Your task to perform on an android device: turn smart compose on in the gmail app Image 0: 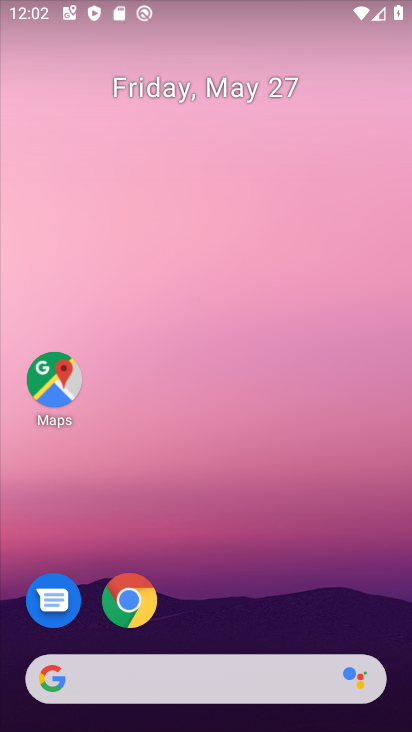
Step 0: drag from (241, 508) to (204, 3)
Your task to perform on an android device: turn smart compose on in the gmail app Image 1: 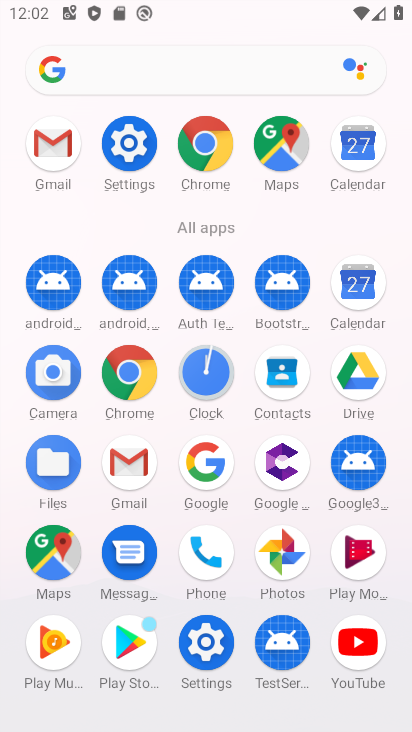
Step 1: drag from (11, 579) to (22, 235)
Your task to perform on an android device: turn smart compose on in the gmail app Image 2: 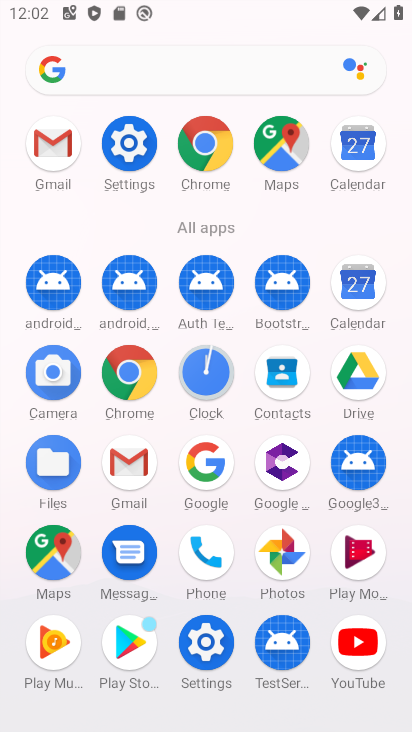
Step 2: click (121, 455)
Your task to perform on an android device: turn smart compose on in the gmail app Image 3: 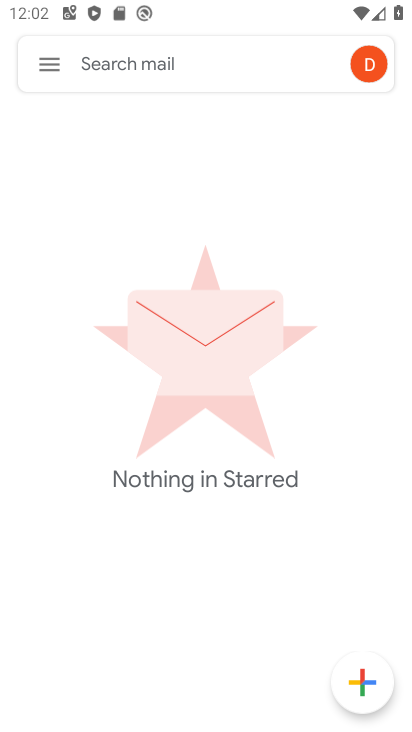
Step 3: click (49, 63)
Your task to perform on an android device: turn smart compose on in the gmail app Image 4: 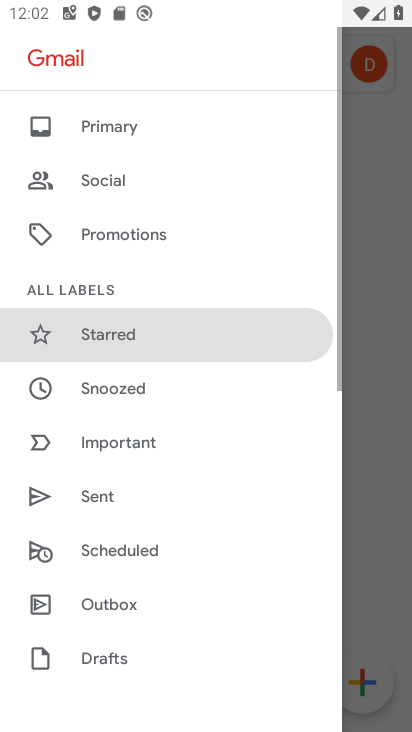
Step 4: drag from (197, 594) to (209, 109)
Your task to perform on an android device: turn smart compose on in the gmail app Image 5: 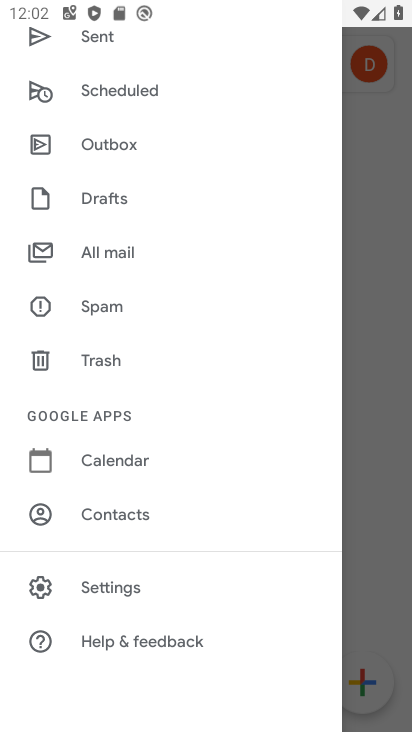
Step 5: click (138, 588)
Your task to perform on an android device: turn smart compose on in the gmail app Image 6: 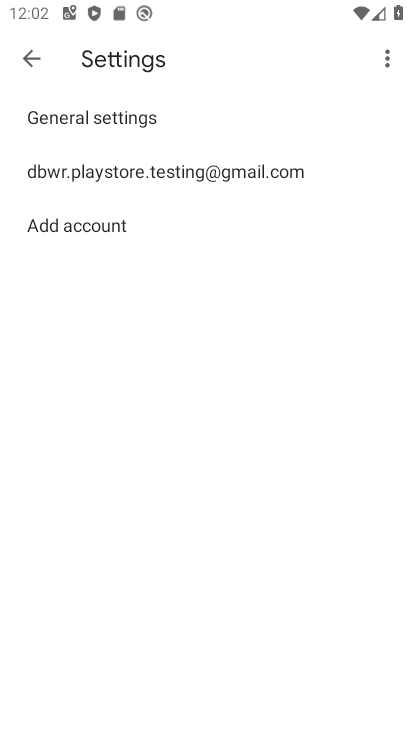
Step 6: click (180, 169)
Your task to perform on an android device: turn smart compose on in the gmail app Image 7: 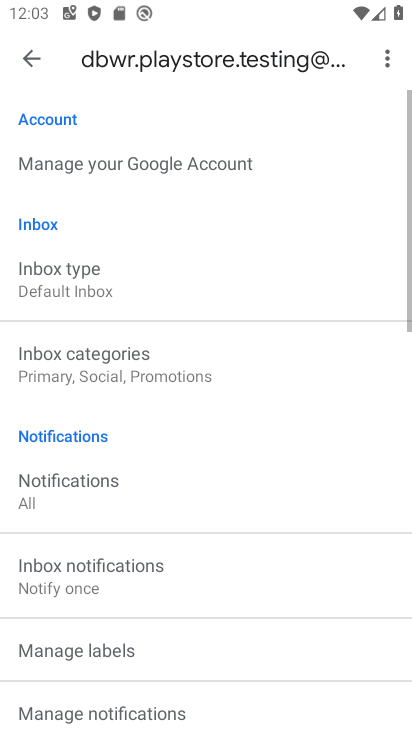
Step 7: task complete